Your task to perform on an android device: turn off improve location accuracy Image 0: 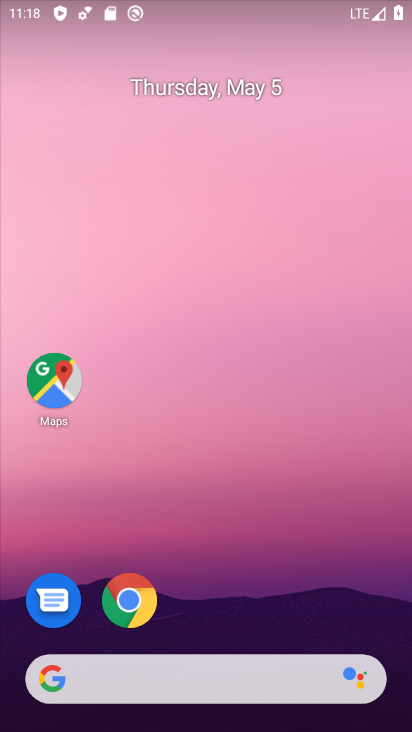
Step 0: drag from (377, 635) to (296, 156)
Your task to perform on an android device: turn off improve location accuracy Image 1: 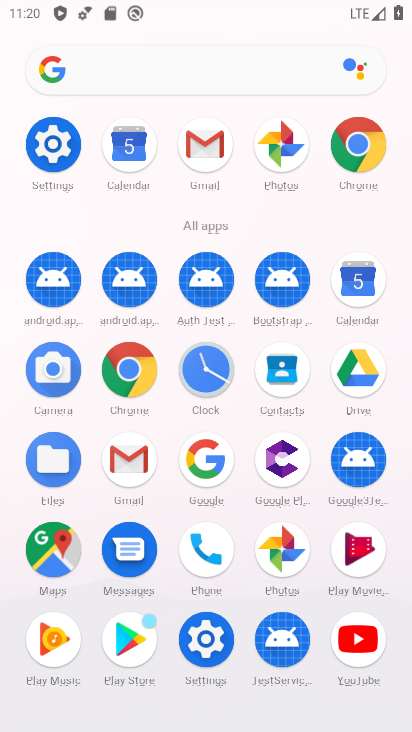
Step 1: click (74, 153)
Your task to perform on an android device: turn off improve location accuracy Image 2: 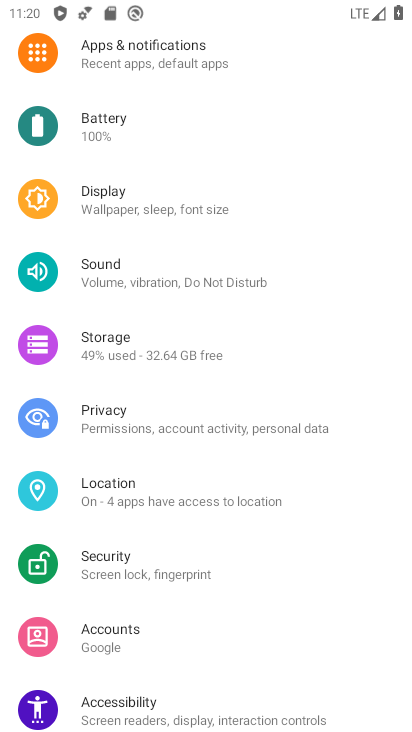
Step 2: click (158, 504)
Your task to perform on an android device: turn off improve location accuracy Image 3: 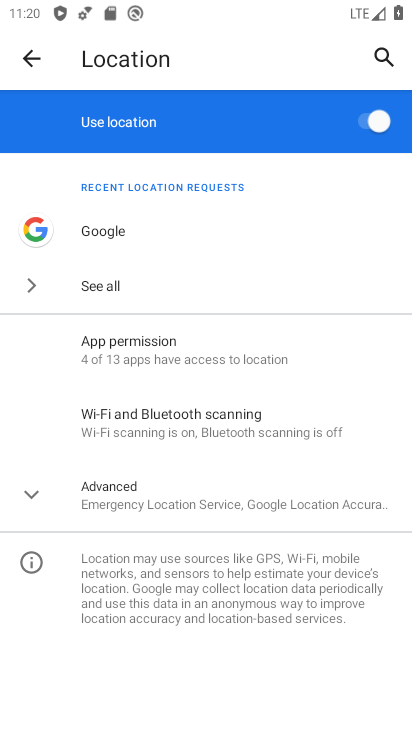
Step 3: click (157, 503)
Your task to perform on an android device: turn off improve location accuracy Image 4: 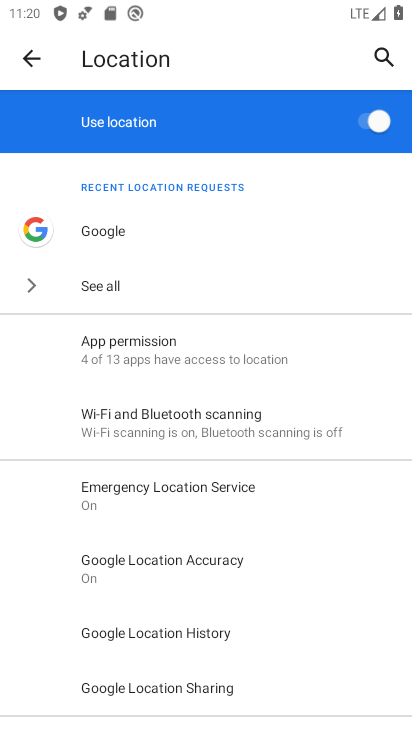
Step 4: click (183, 573)
Your task to perform on an android device: turn off improve location accuracy Image 5: 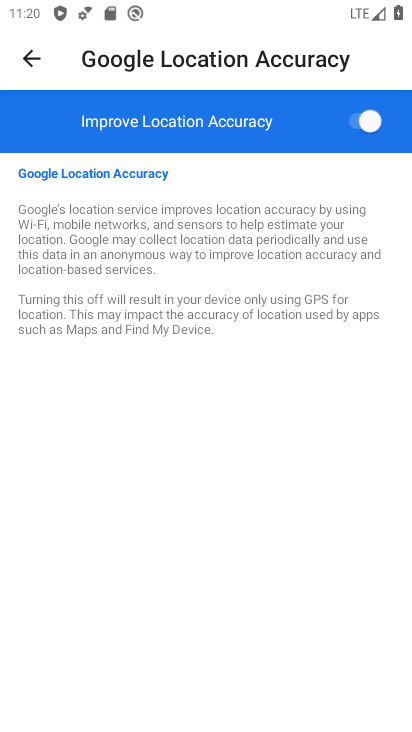
Step 5: click (313, 129)
Your task to perform on an android device: turn off improve location accuracy Image 6: 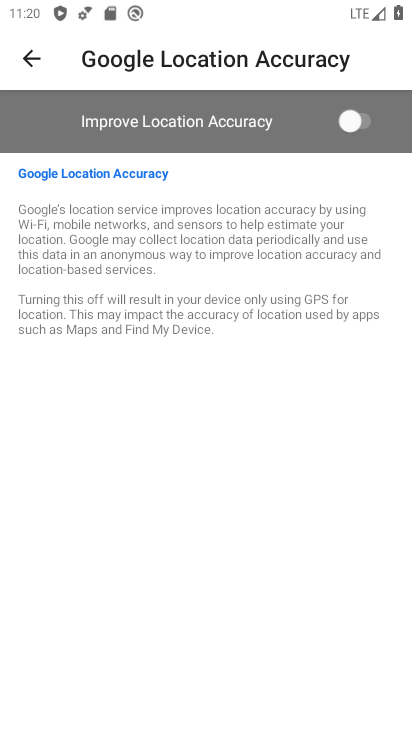
Step 6: task complete